Your task to perform on an android device: Turn off the flashlight Image 0: 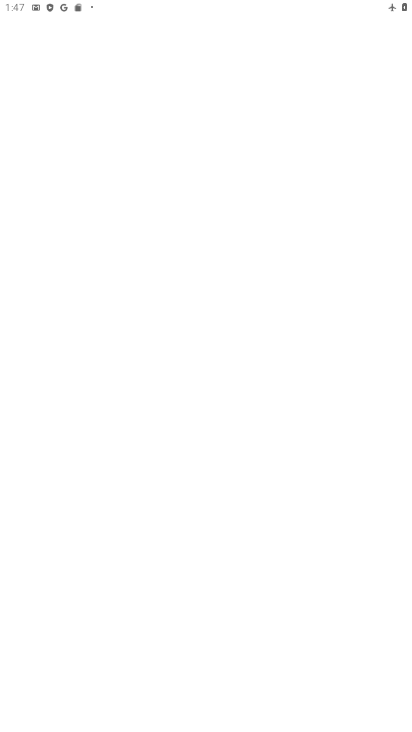
Step 0: drag from (232, 670) to (179, 214)
Your task to perform on an android device: Turn off the flashlight Image 1: 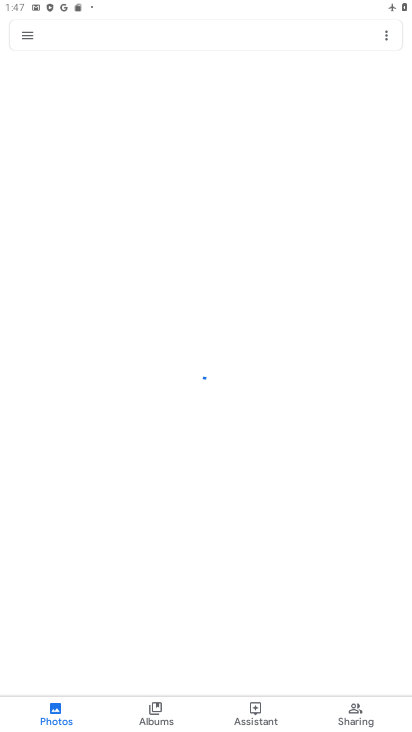
Step 1: task complete